Your task to perform on an android device: Open Android settings Image 0: 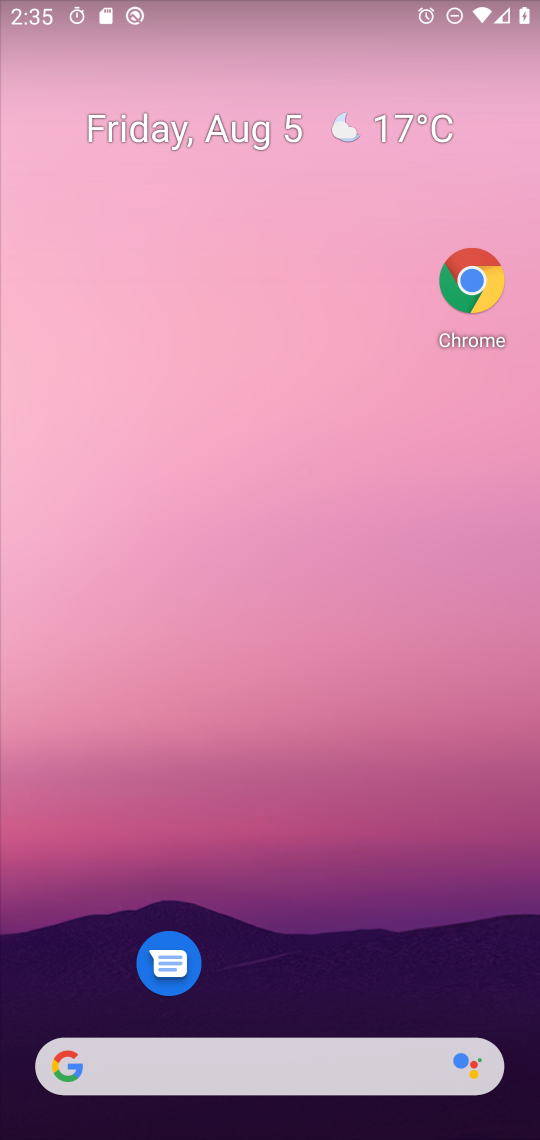
Step 0: drag from (435, 951) to (435, 79)
Your task to perform on an android device: Open Android settings Image 1: 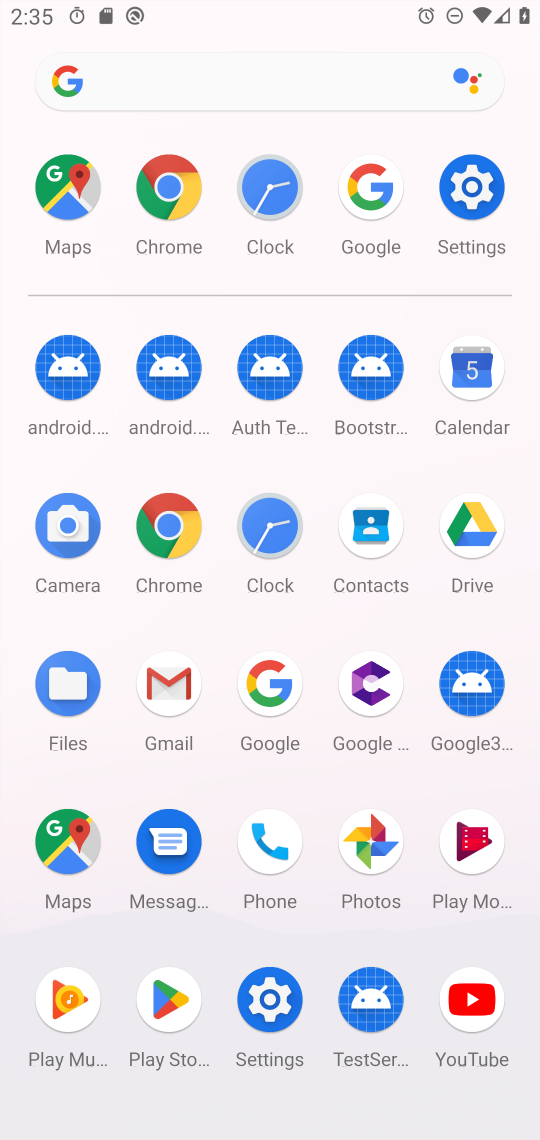
Step 1: click (484, 193)
Your task to perform on an android device: Open Android settings Image 2: 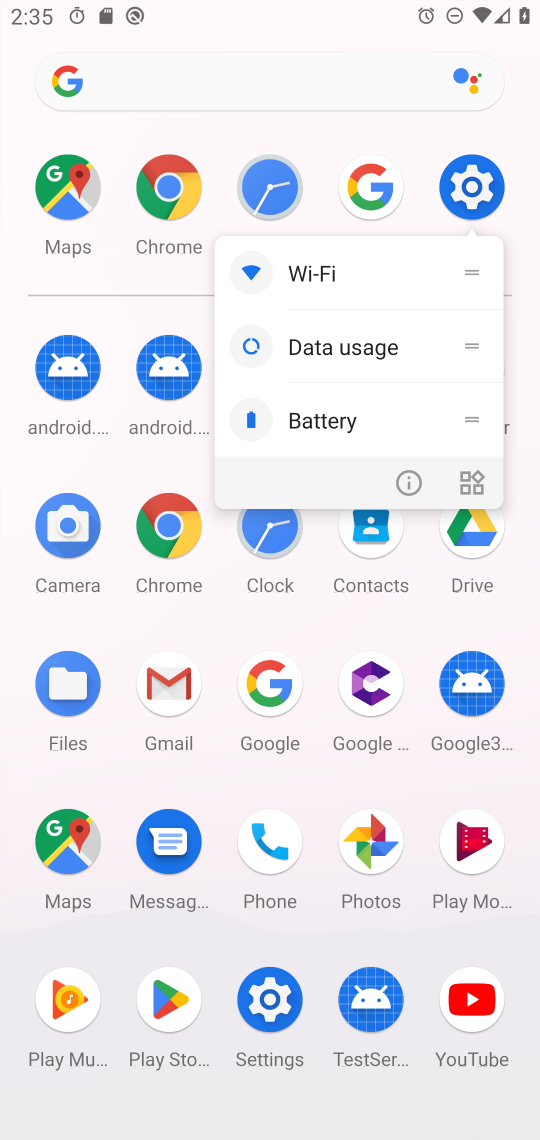
Step 2: click (484, 192)
Your task to perform on an android device: Open Android settings Image 3: 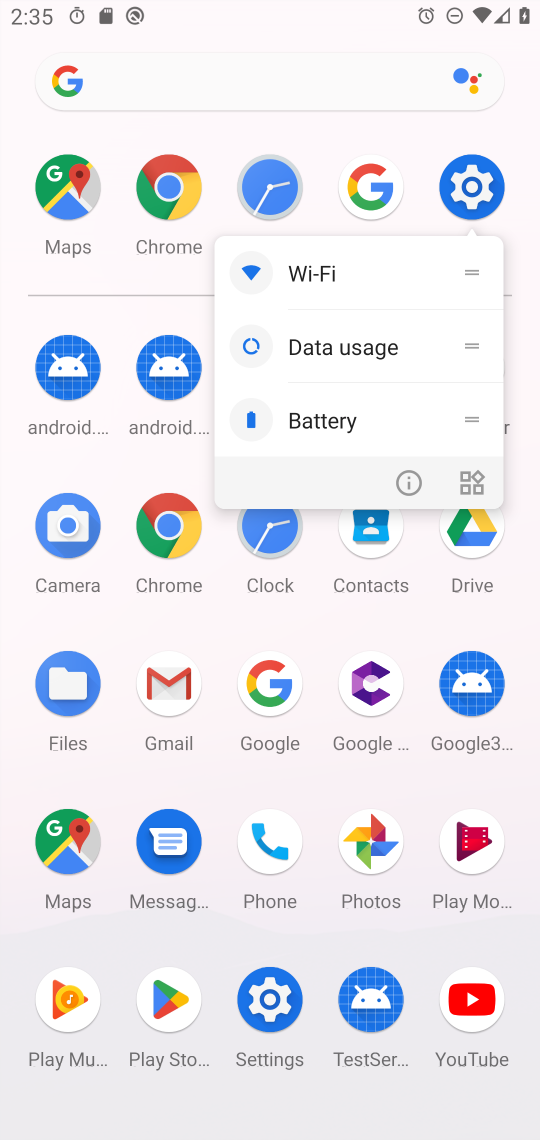
Step 3: click (484, 192)
Your task to perform on an android device: Open Android settings Image 4: 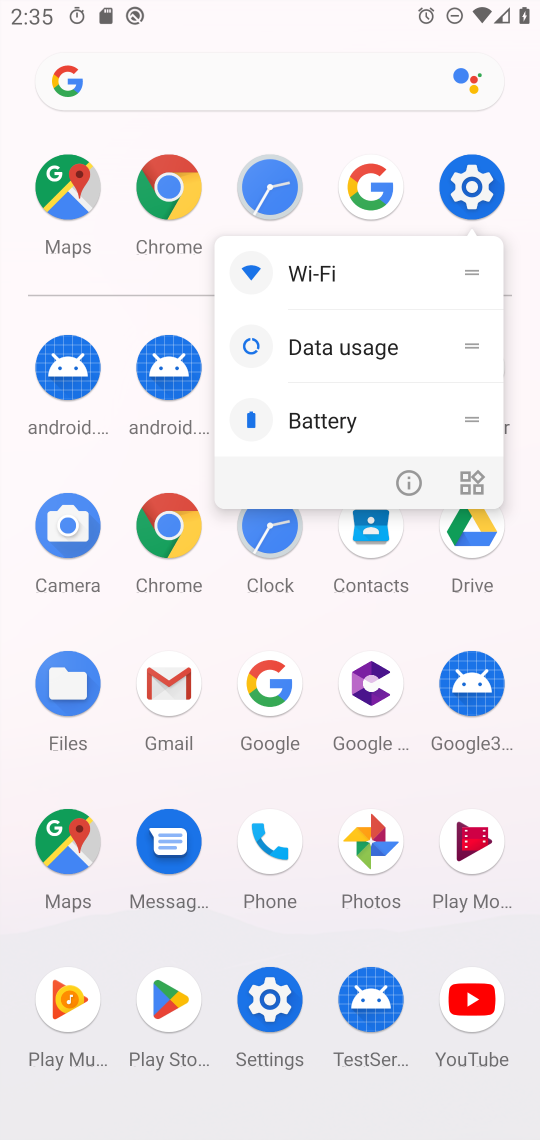
Step 4: click (484, 191)
Your task to perform on an android device: Open Android settings Image 5: 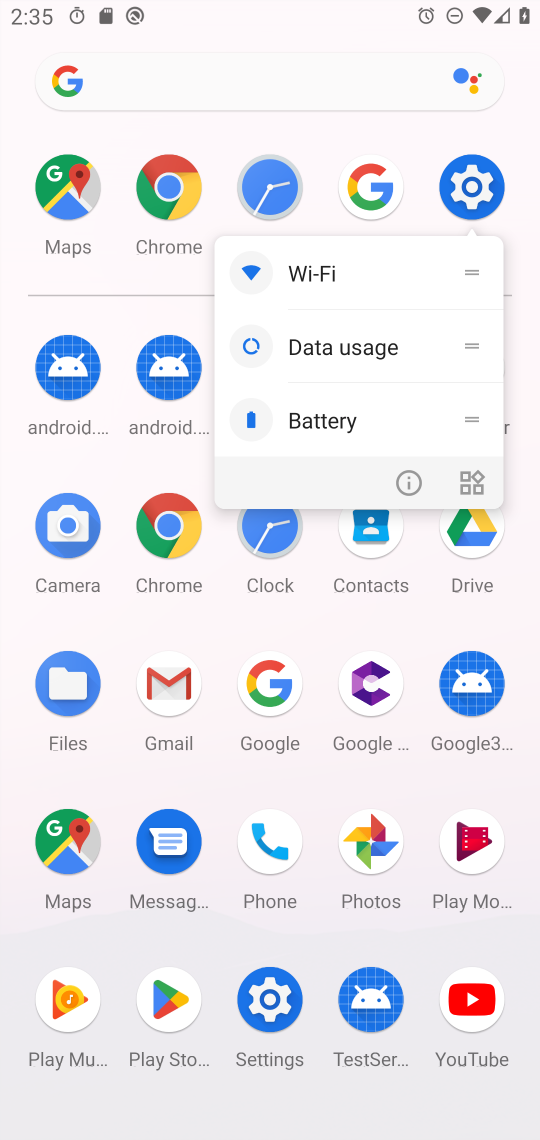
Step 5: click (484, 192)
Your task to perform on an android device: Open Android settings Image 6: 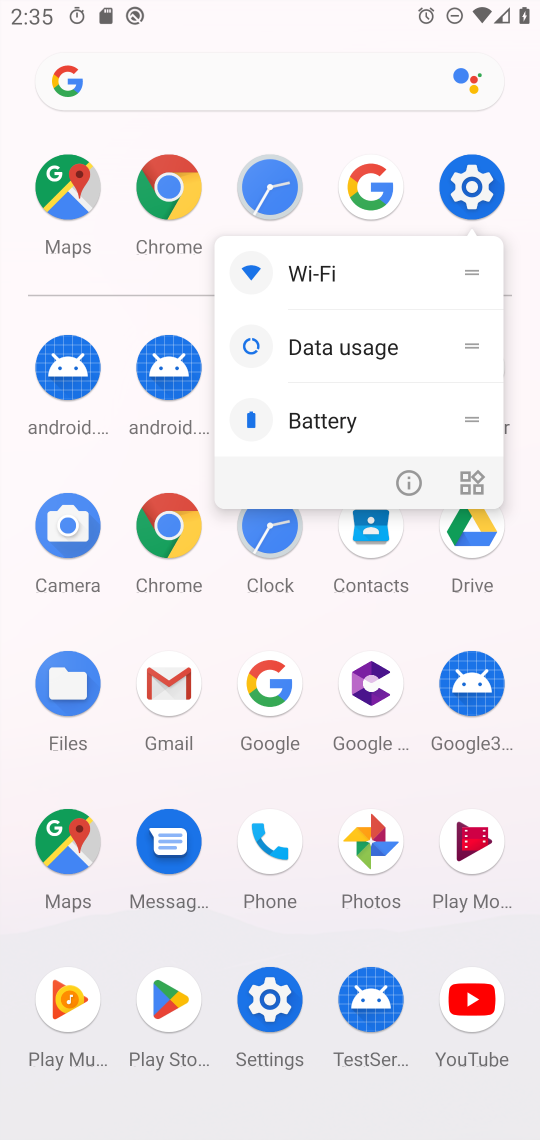
Step 6: click (467, 164)
Your task to perform on an android device: Open Android settings Image 7: 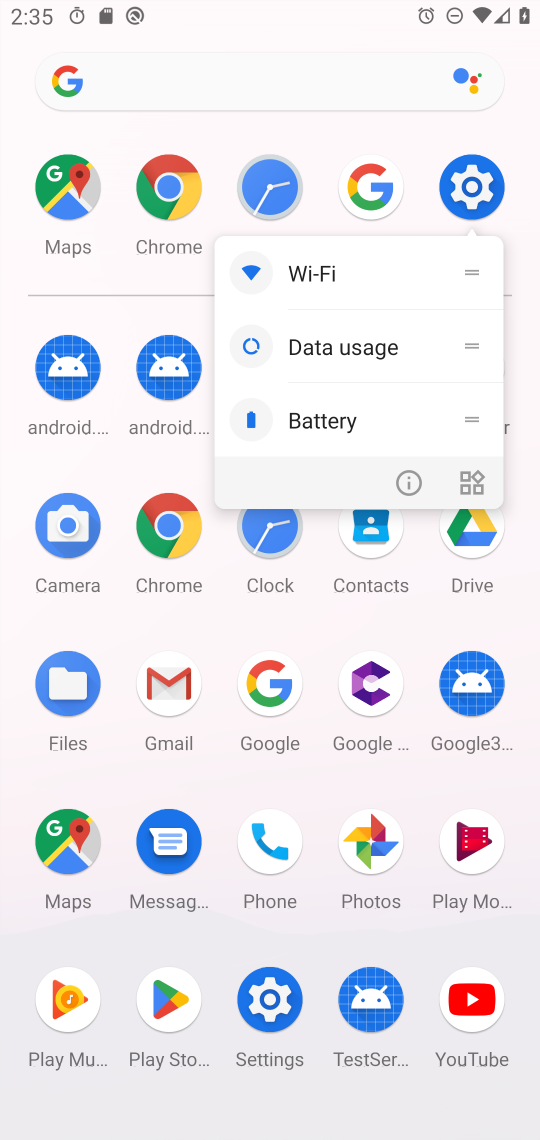
Step 7: click (467, 164)
Your task to perform on an android device: Open Android settings Image 8: 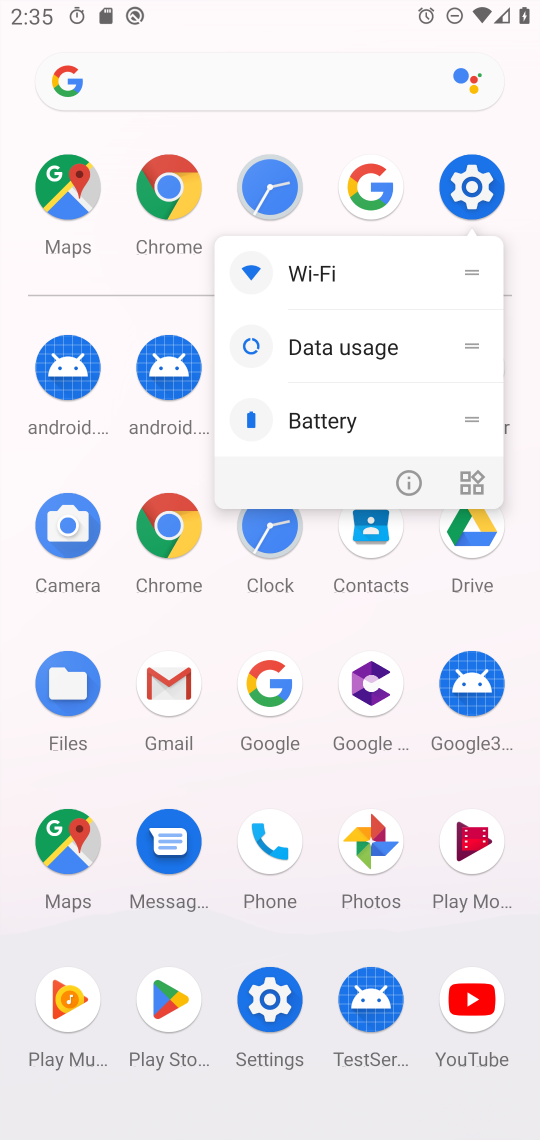
Step 8: click (467, 161)
Your task to perform on an android device: Open Android settings Image 9: 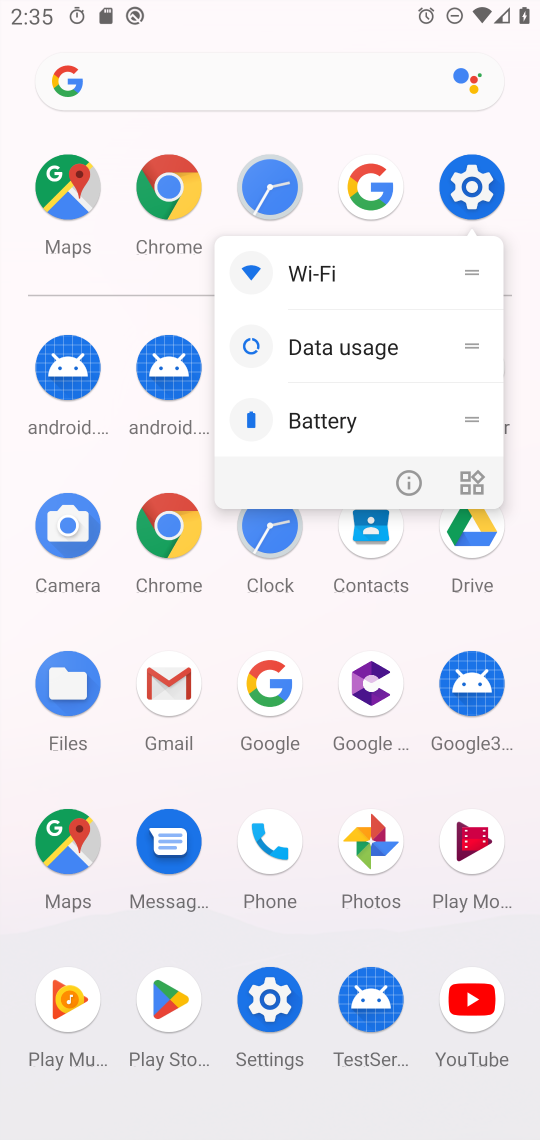
Step 9: click (467, 161)
Your task to perform on an android device: Open Android settings Image 10: 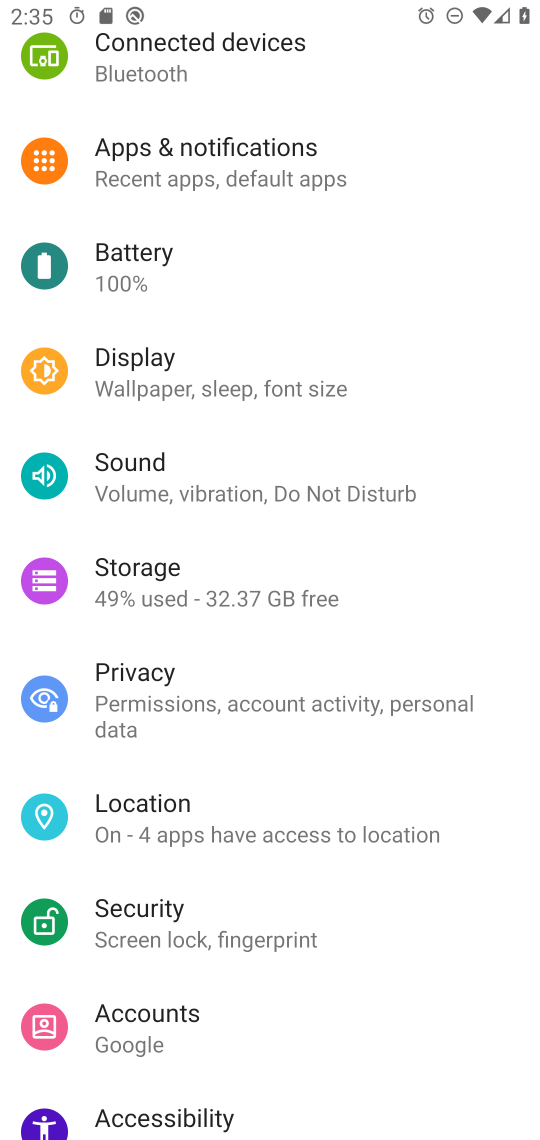
Step 10: task complete